Your task to perform on an android device: make emails show in primary in the gmail app Image 0: 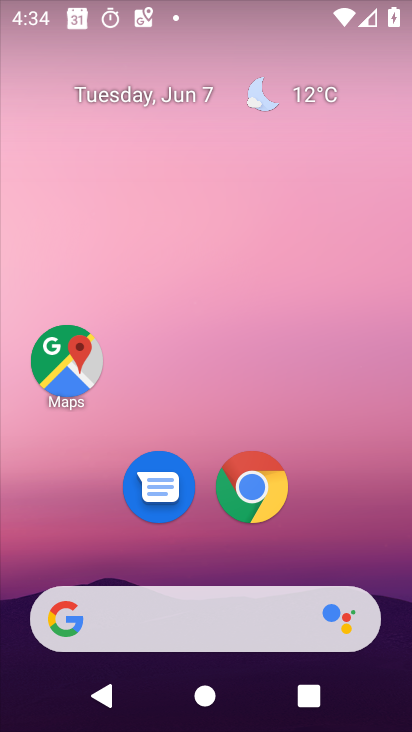
Step 0: drag from (236, 544) to (309, 120)
Your task to perform on an android device: make emails show in primary in the gmail app Image 1: 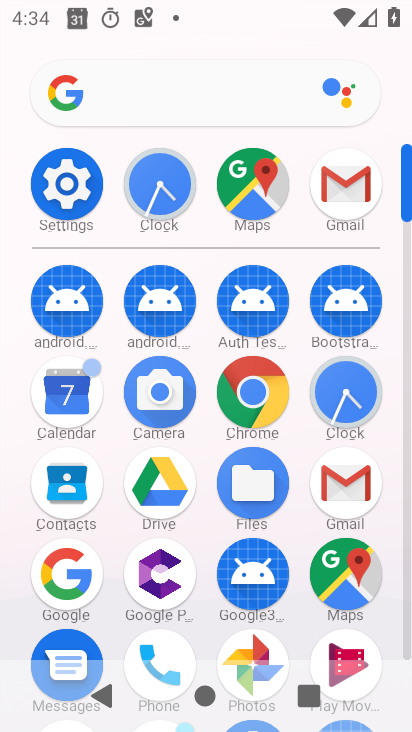
Step 1: click (343, 177)
Your task to perform on an android device: make emails show in primary in the gmail app Image 2: 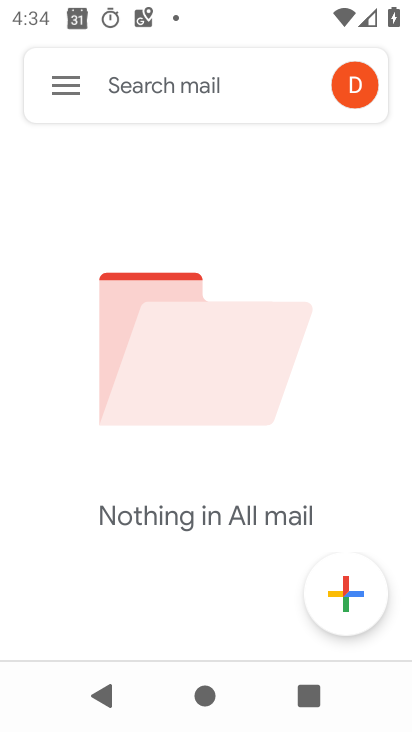
Step 2: click (50, 86)
Your task to perform on an android device: make emails show in primary in the gmail app Image 3: 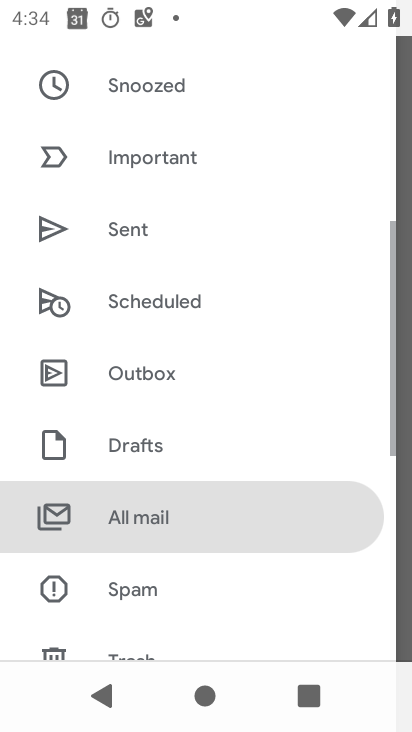
Step 3: drag from (115, 590) to (247, 50)
Your task to perform on an android device: make emails show in primary in the gmail app Image 4: 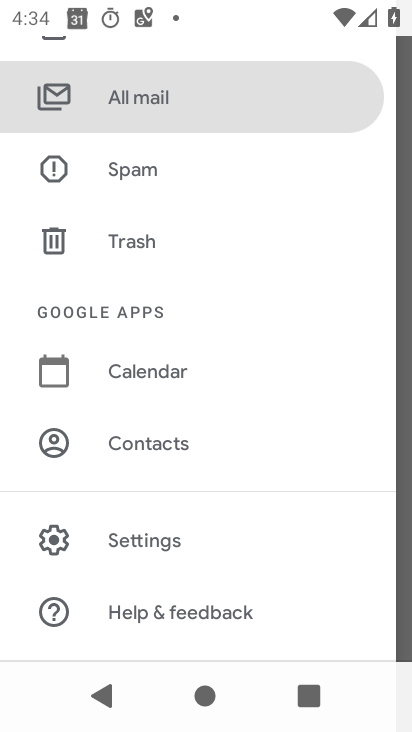
Step 4: click (129, 547)
Your task to perform on an android device: make emails show in primary in the gmail app Image 5: 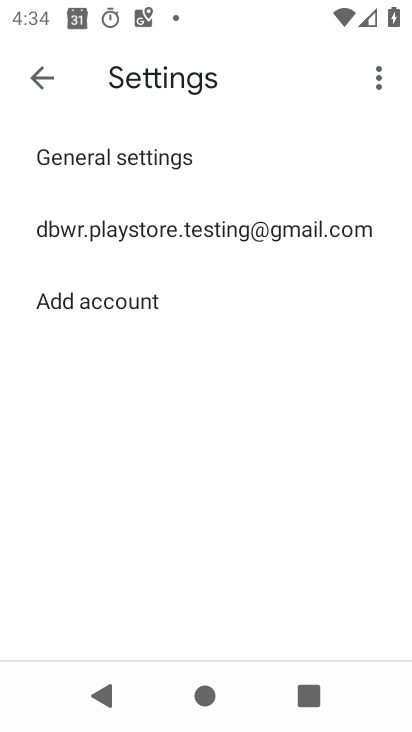
Step 5: click (136, 239)
Your task to perform on an android device: make emails show in primary in the gmail app Image 6: 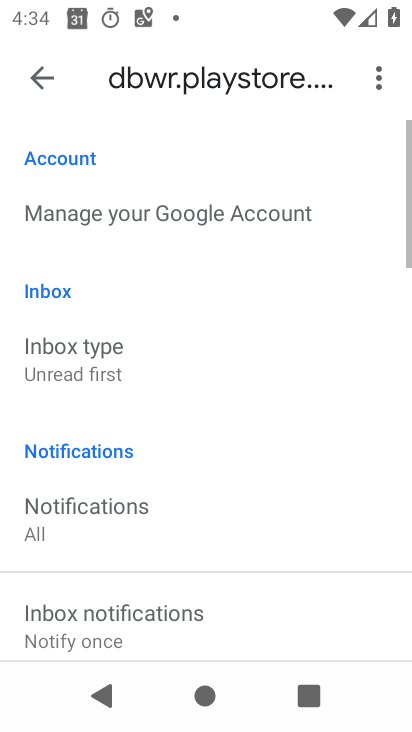
Step 6: task complete